Your task to perform on an android device: change the clock display to digital Image 0: 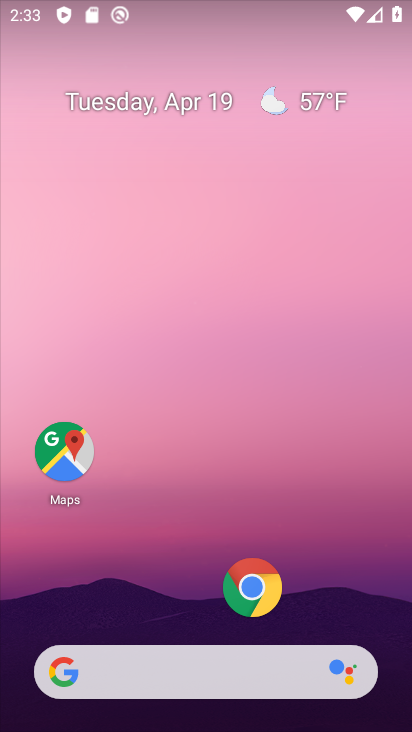
Step 0: drag from (185, 494) to (288, 53)
Your task to perform on an android device: change the clock display to digital Image 1: 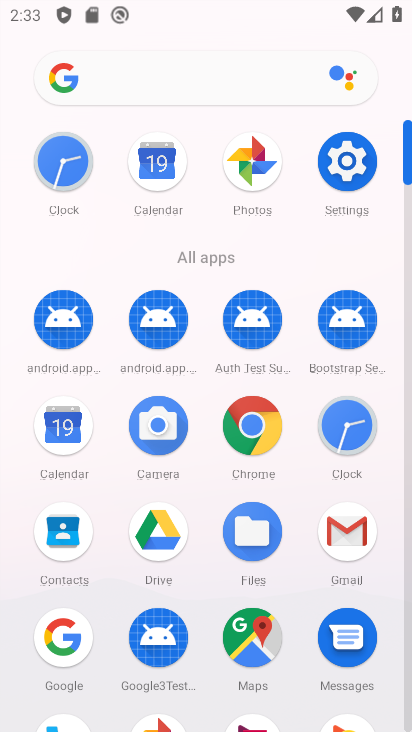
Step 1: click (350, 418)
Your task to perform on an android device: change the clock display to digital Image 2: 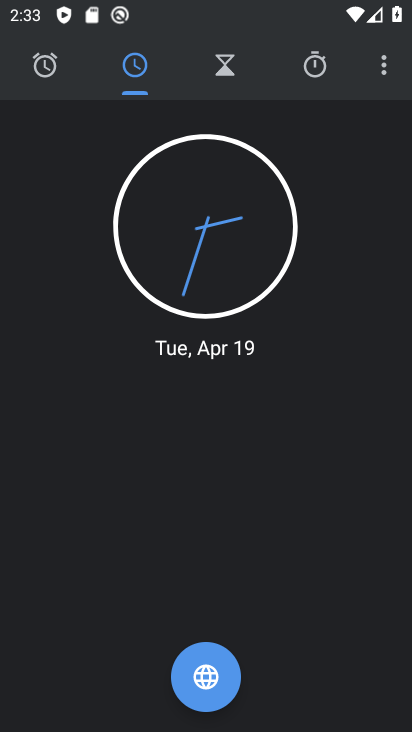
Step 2: click (377, 72)
Your task to perform on an android device: change the clock display to digital Image 3: 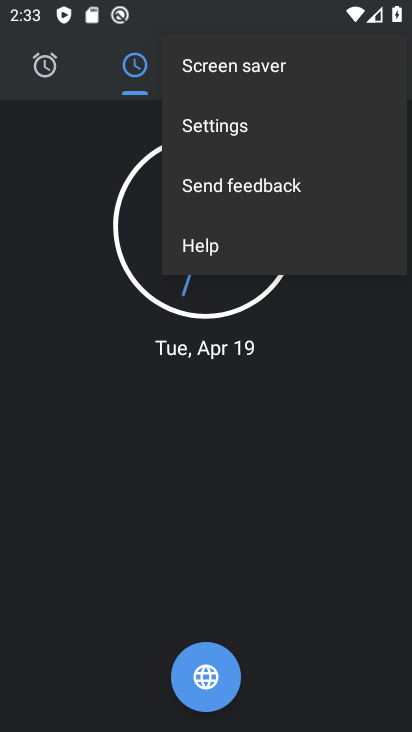
Step 3: click (244, 139)
Your task to perform on an android device: change the clock display to digital Image 4: 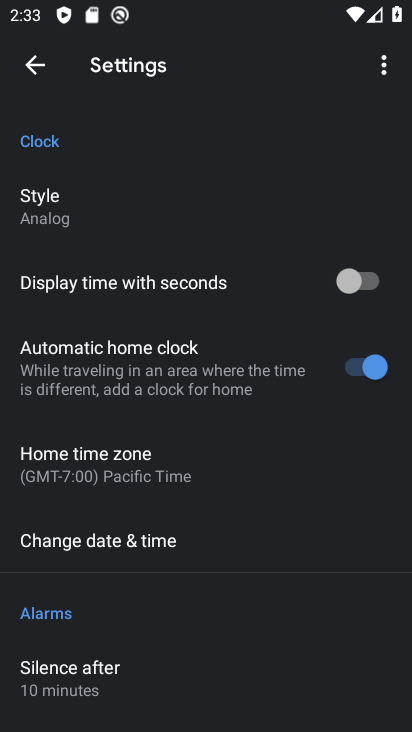
Step 4: click (90, 229)
Your task to perform on an android device: change the clock display to digital Image 5: 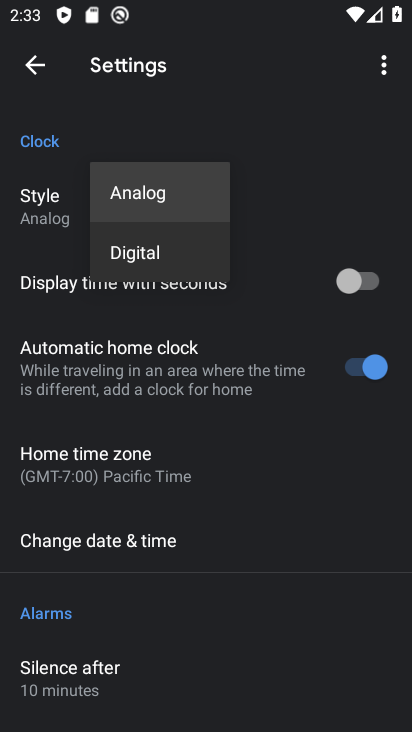
Step 5: click (144, 266)
Your task to perform on an android device: change the clock display to digital Image 6: 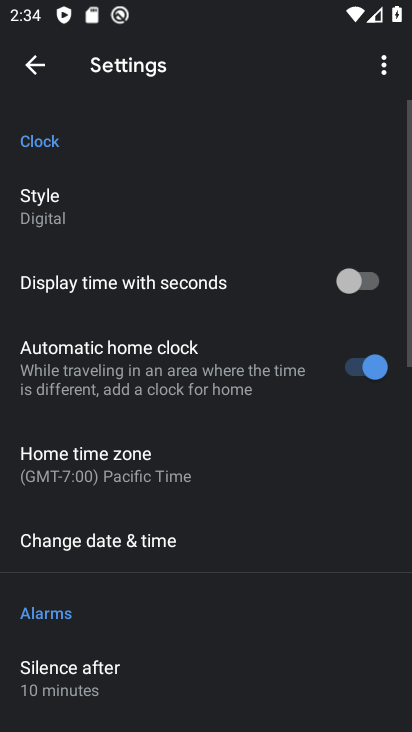
Step 6: task complete